Your task to perform on an android device: Go to wifi settings Image 0: 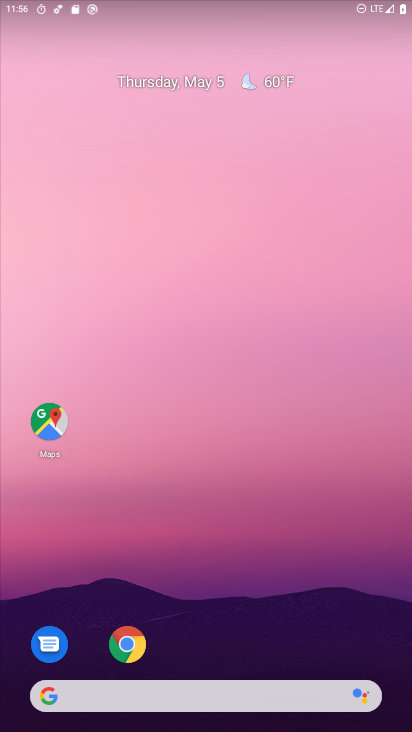
Step 0: drag from (359, 597) to (353, 153)
Your task to perform on an android device: Go to wifi settings Image 1: 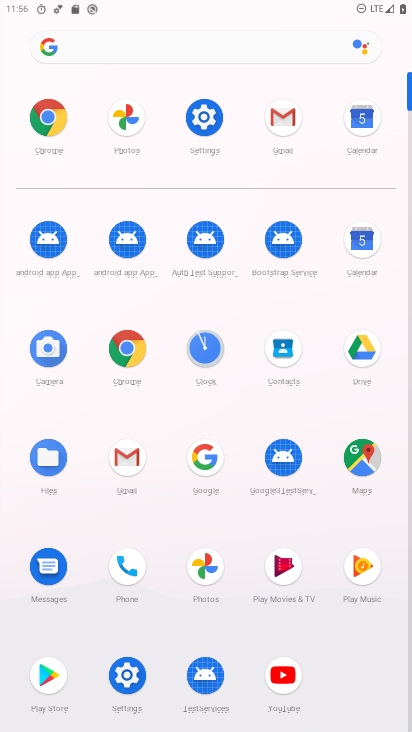
Step 1: click (130, 684)
Your task to perform on an android device: Go to wifi settings Image 2: 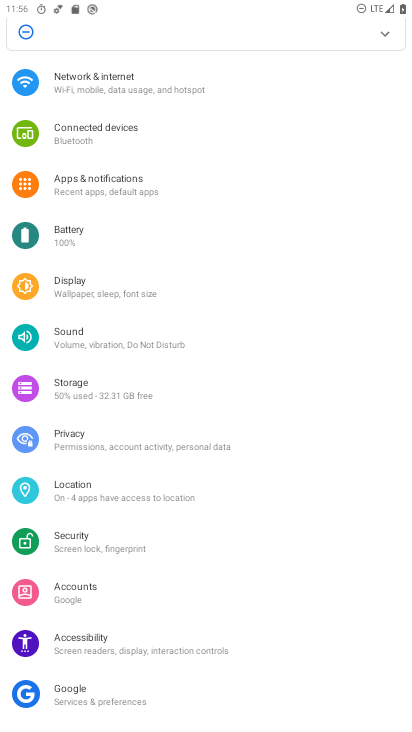
Step 2: click (136, 92)
Your task to perform on an android device: Go to wifi settings Image 3: 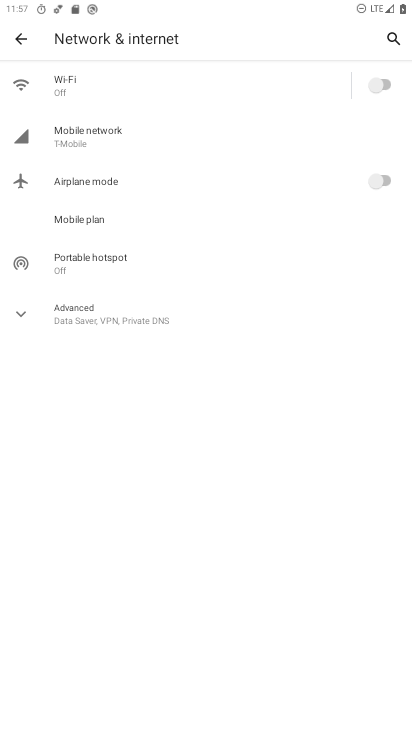
Step 3: click (134, 89)
Your task to perform on an android device: Go to wifi settings Image 4: 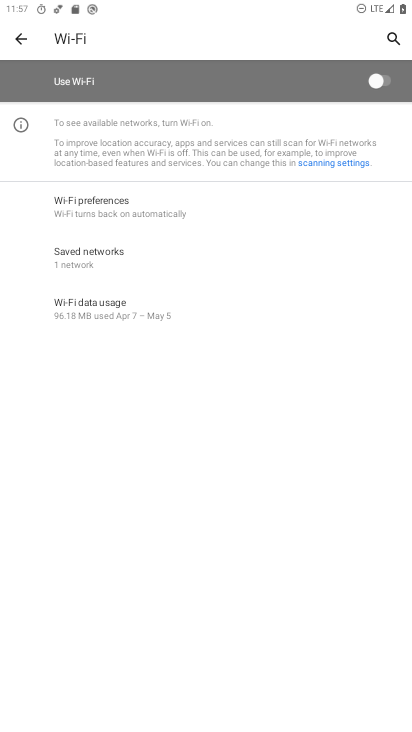
Step 4: task complete